Your task to perform on an android device: Search for "razer kraken" on amazon.com, select the first entry, add it to the cart, then select checkout. Image 0: 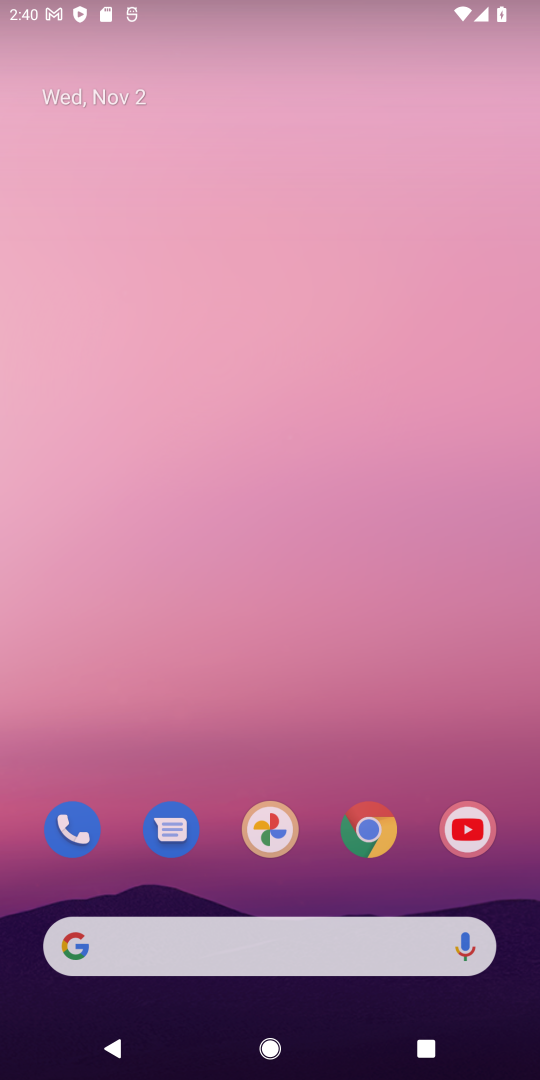
Step 0: press home button
Your task to perform on an android device: Search for "razer kraken" on amazon.com, select the first entry, add it to the cart, then select checkout. Image 1: 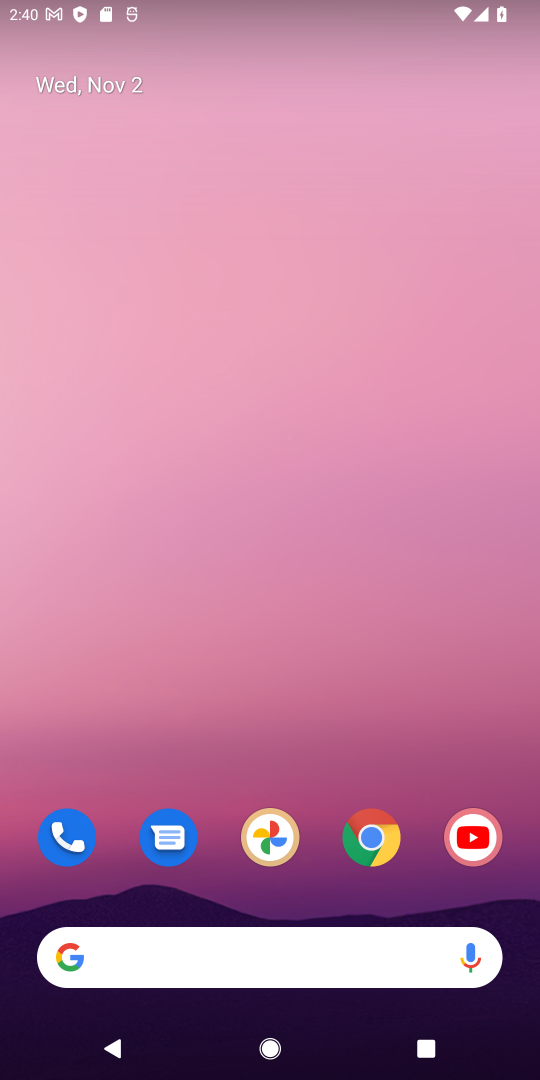
Step 1: drag from (308, 816) to (316, 44)
Your task to perform on an android device: Search for "razer kraken" on amazon.com, select the first entry, add it to the cart, then select checkout. Image 2: 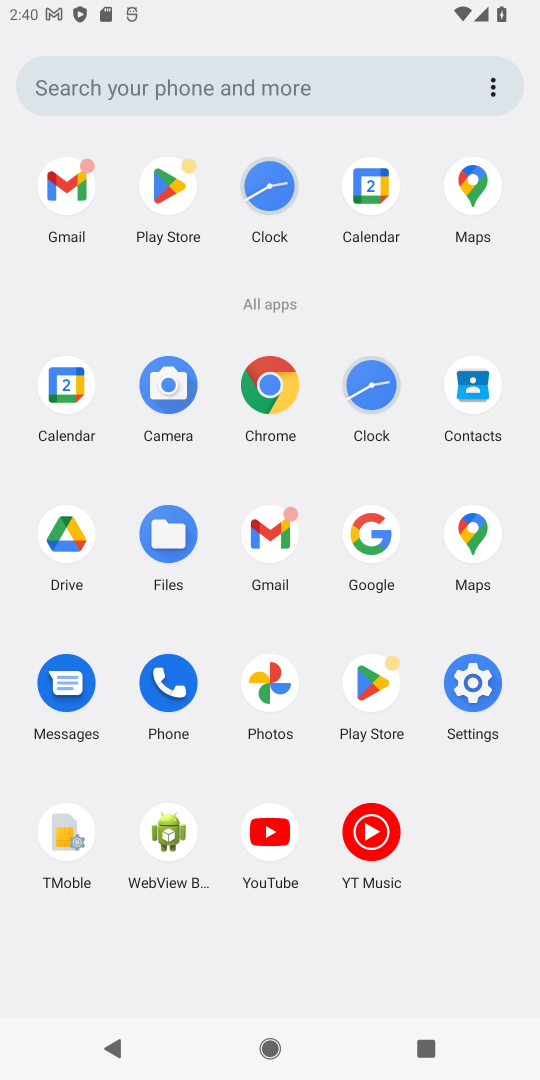
Step 2: click (267, 390)
Your task to perform on an android device: Search for "razer kraken" on amazon.com, select the first entry, add it to the cart, then select checkout. Image 3: 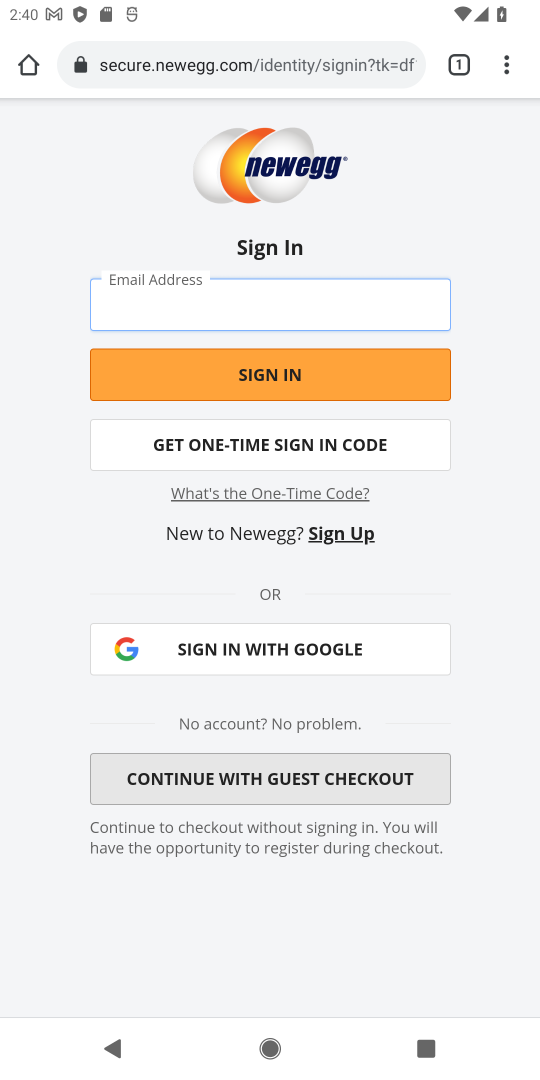
Step 3: click (138, 67)
Your task to perform on an android device: Search for "razer kraken" on amazon.com, select the first entry, add it to the cart, then select checkout. Image 4: 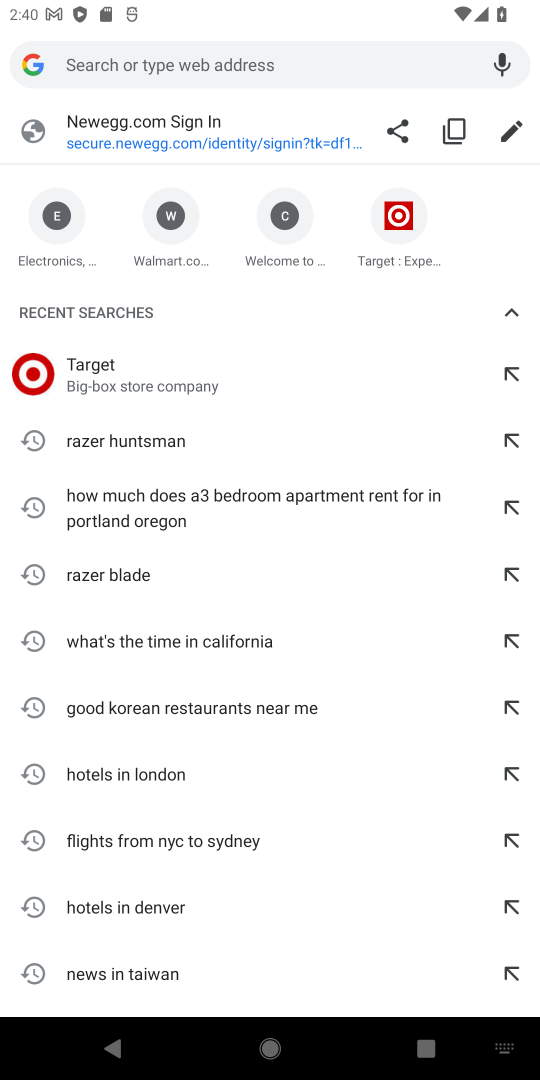
Step 4: type "amazon"
Your task to perform on an android device: Search for "razer kraken" on amazon.com, select the first entry, add it to the cart, then select checkout. Image 5: 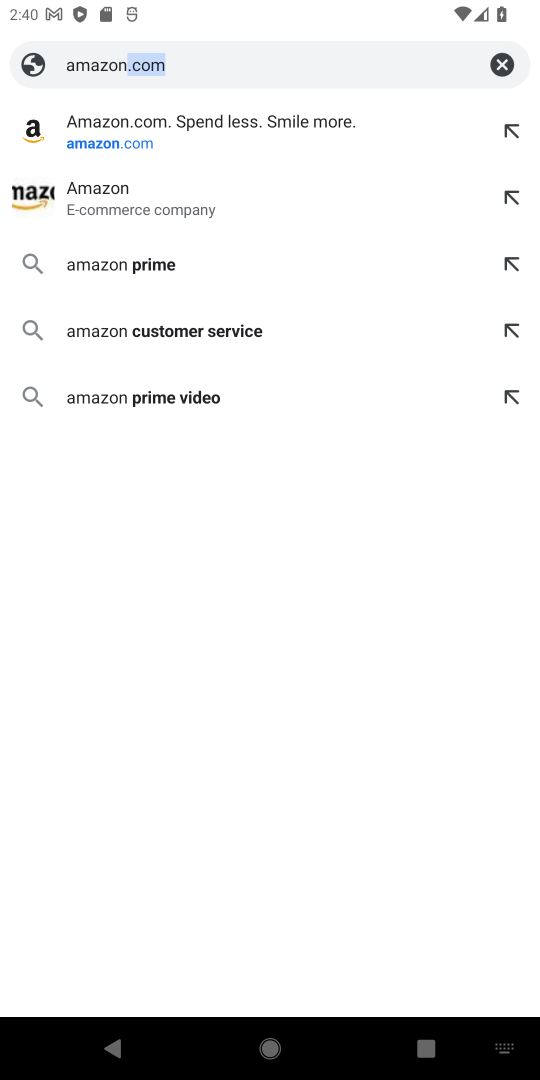
Step 5: click (79, 140)
Your task to perform on an android device: Search for "razer kraken" on amazon.com, select the first entry, add it to the cart, then select checkout. Image 6: 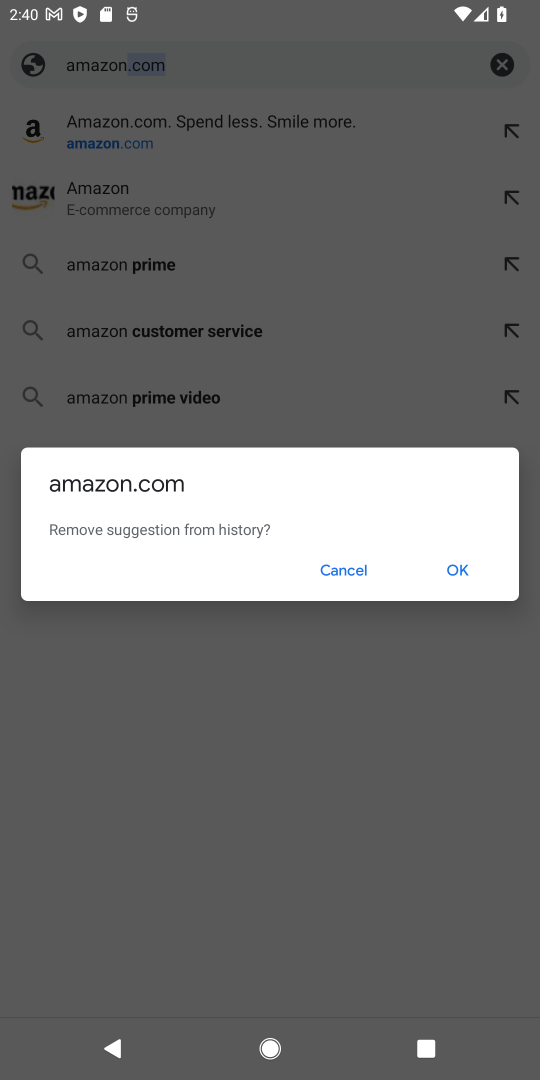
Step 6: click (348, 573)
Your task to perform on an android device: Search for "razer kraken" on amazon.com, select the first entry, add it to the cart, then select checkout. Image 7: 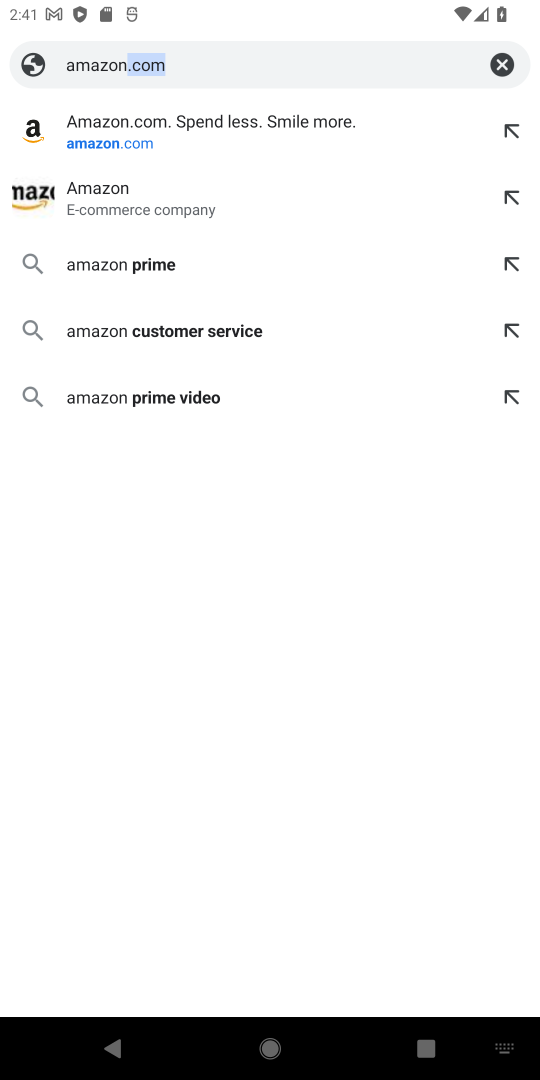
Step 7: click (97, 205)
Your task to perform on an android device: Search for "razer kraken" on amazon.com, select the first entry, add it to the cart, then select checkout. Image 8: 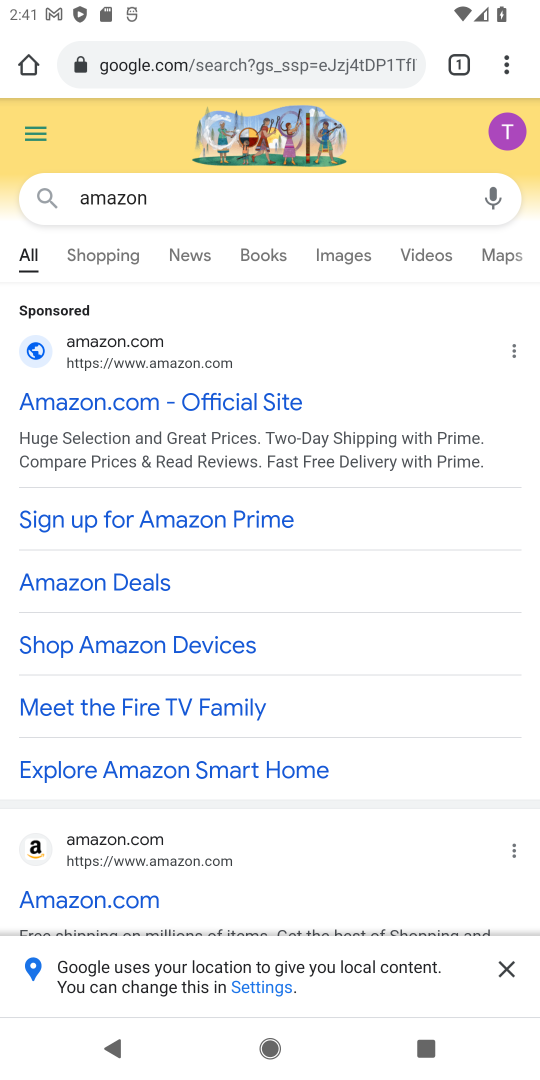
Step 8: click (132, 394)
Your task to perform on an android device: Search for "razer kraken" on amazon.com, select the first entry, add it to the cart, then select checkout. Image 9: 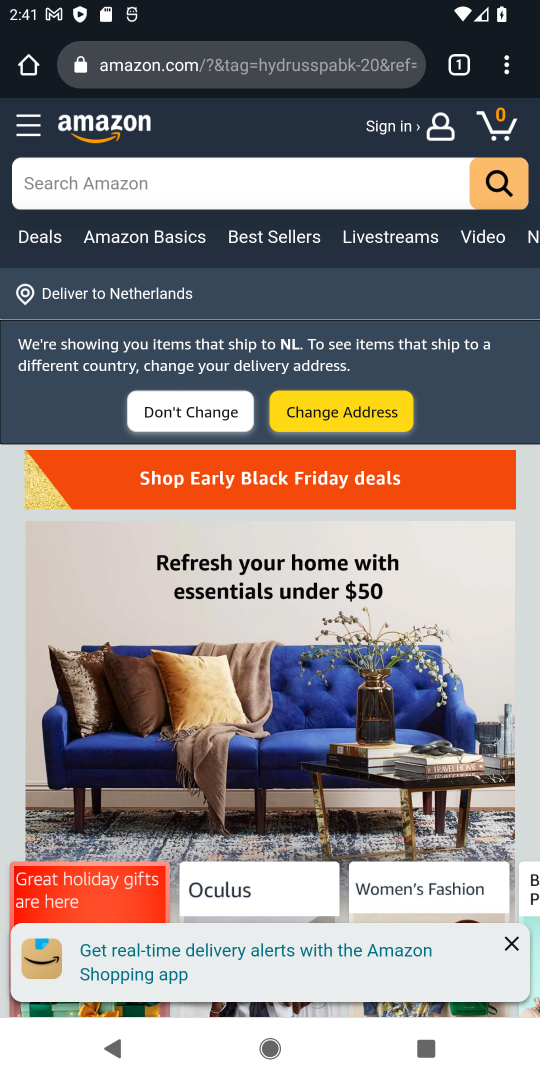
Step 9: click (119, 178)
Your task to perform on an android device: Search for "razer kraken" on amazon.com, select the first entry, add it to the cart, then select checkout. Image 10: 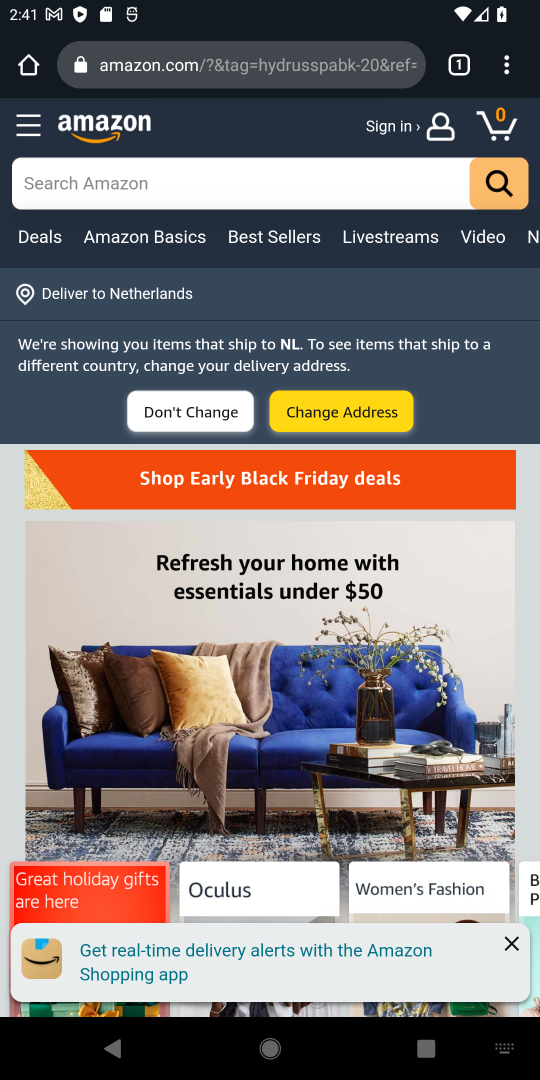
Step 10: type "razer kraken"
Your task to perform on an android device: Search for "razer kraken" on amazon.com, select the first entry, add it to the cart, then select checkout. Image 11: 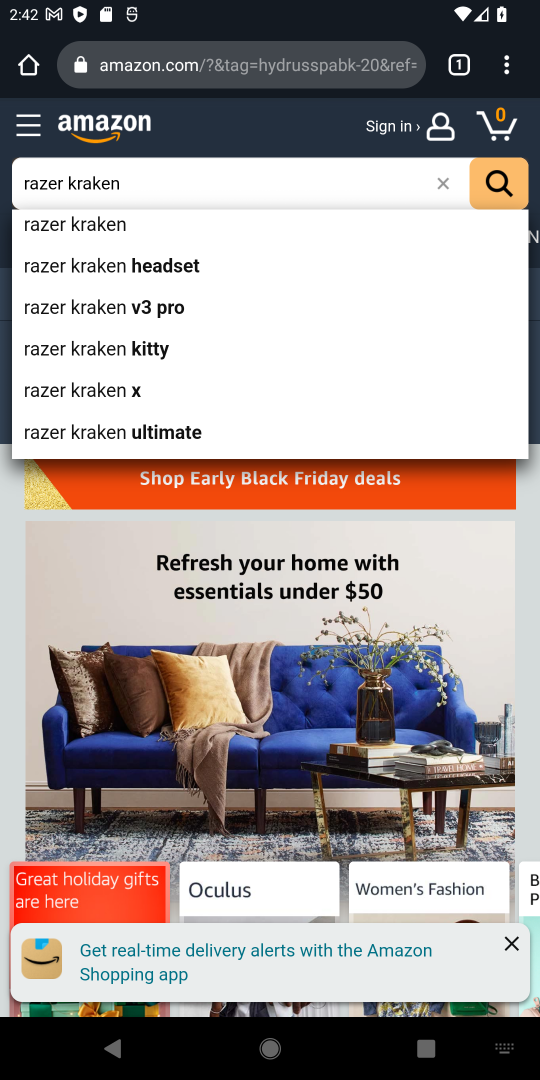
Step 11: click (144, 219)
Your task to perform on an android device: Search for "razer kraken" on amazon.com, select the first entry, add it to the cart, then select checkout. Image 12: 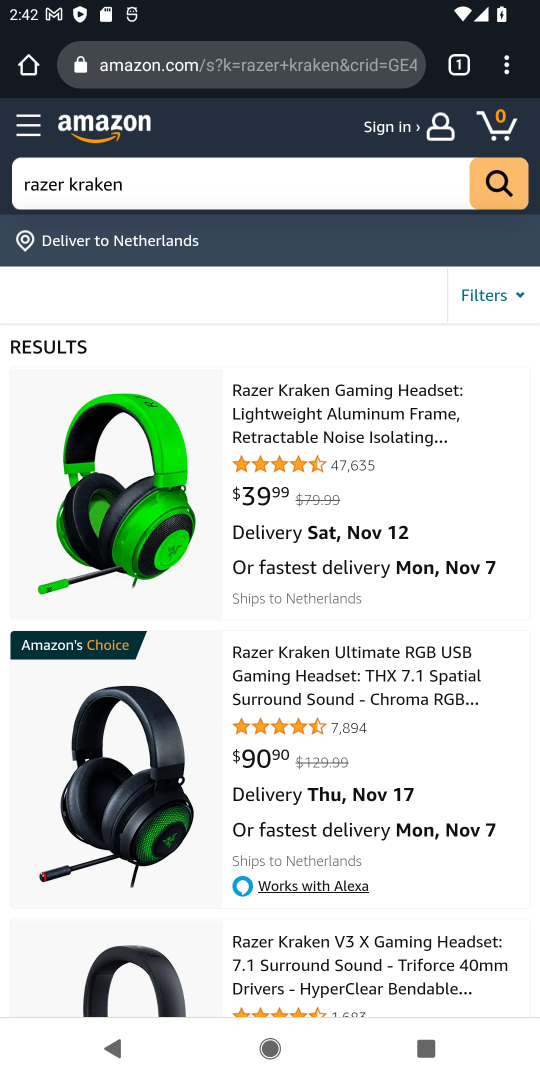
Step 12: click (284, 683)
Your task to perform on an android device: Search for "razer kraken" on amazon.com, select the first entry, add it to the cart, then select checkout. Image 13: 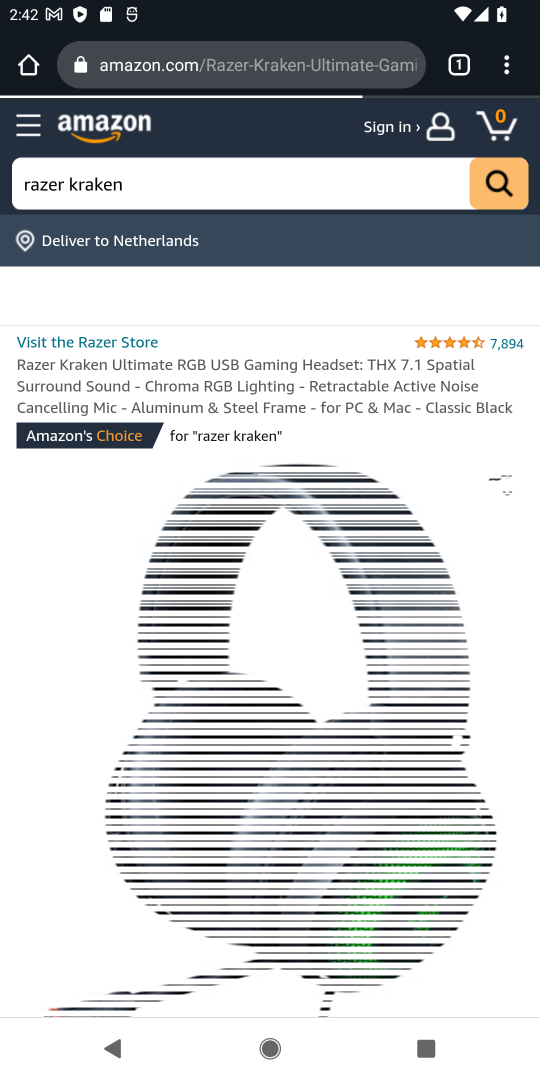
Step 13: drag from (69, 888) to (156, 205)
Your task to perform on an android device: Search for "razer kraken" on amazon.com, select the first entry, add it to the cart, then select checkout. Image 14: 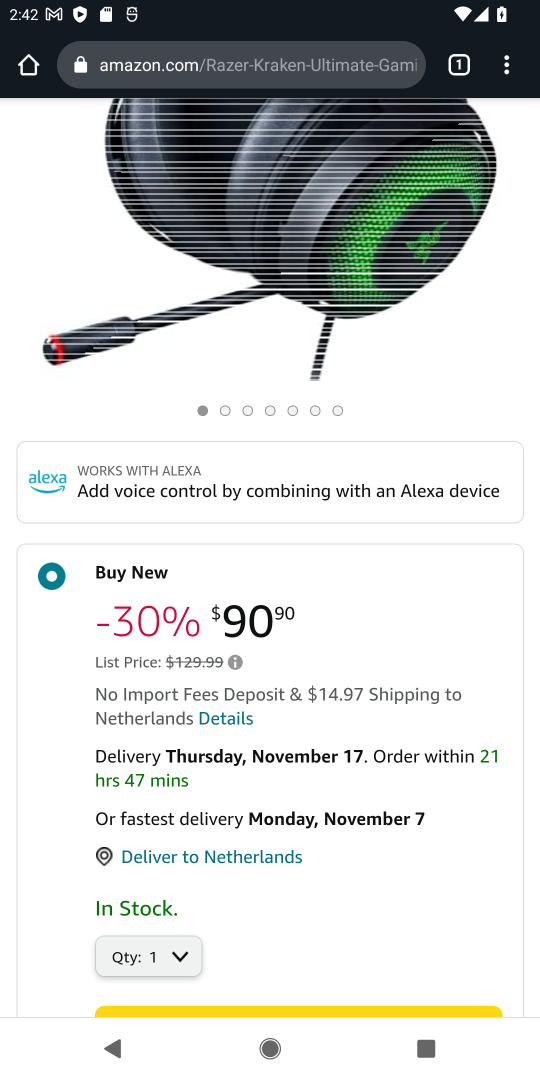
Step 14: drag from (289, 914) to (306, 437)
Your task to perform on an android device: Search for "razer kraken" on amazon.com, select the first entry, add it to the cart, then select checkout. Image 15: 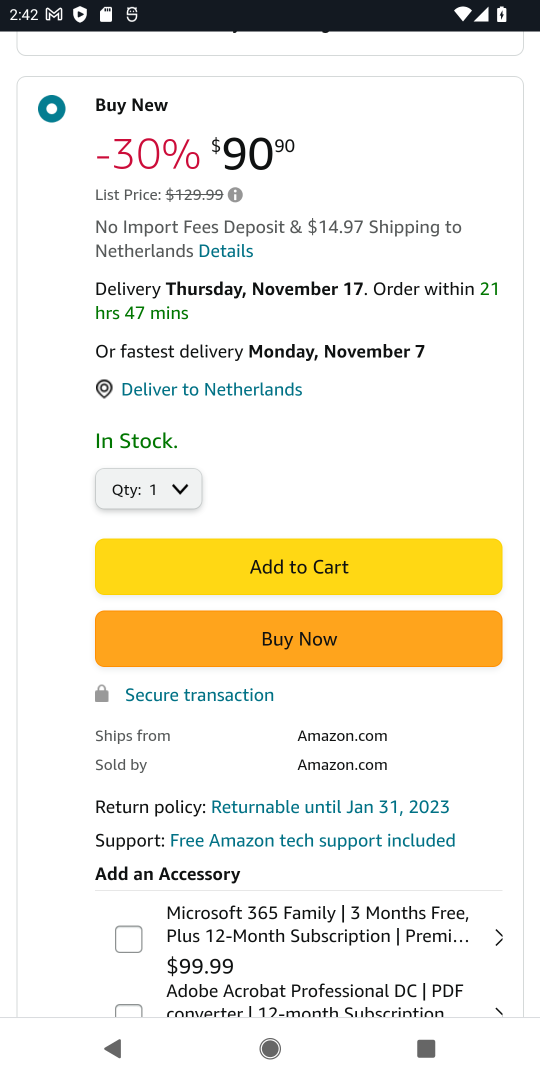
Step 15: click (297, 566)
Your task to perform on an android device: Search for "razer kraken" on amazon.com, select the first entry, add it to the cart, then select checkout. Image 16: 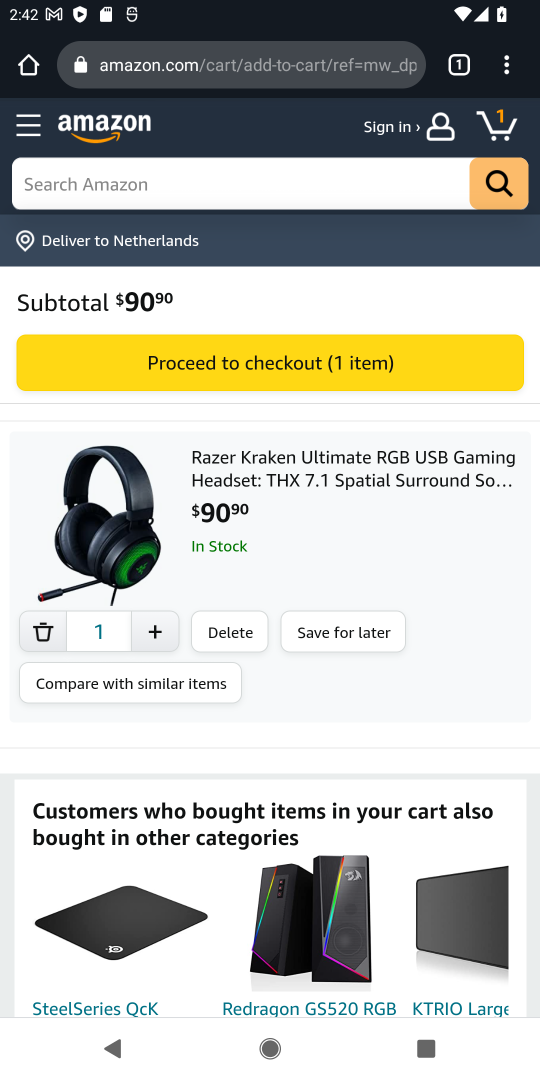
Step 16: drag from (261, 773) to (298, 875)
Your task to perform on an android device: Search for "razer kraken" on amazon.com, select the first entry, add it to the cart, then select checkout. Image 17: 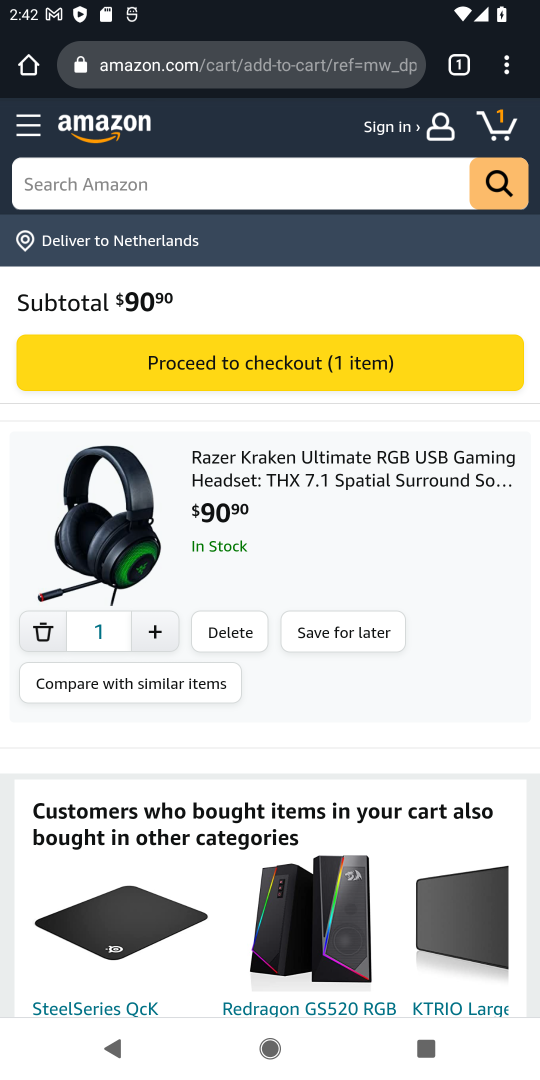
Step 17: click (231, 359)
Your task to perform on an android device: Search for "razer kraken" on amazon.com, select the first entry, add it to the cart, then select checkout. Image 18: 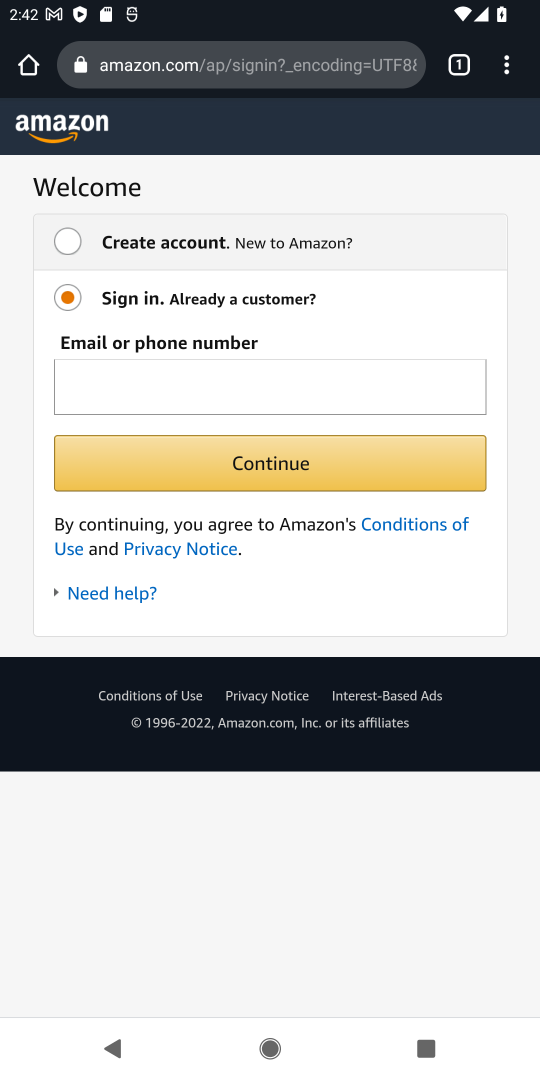
Step 18: task complete